Your task to perform on an android device: change text size in settings app Image 0: 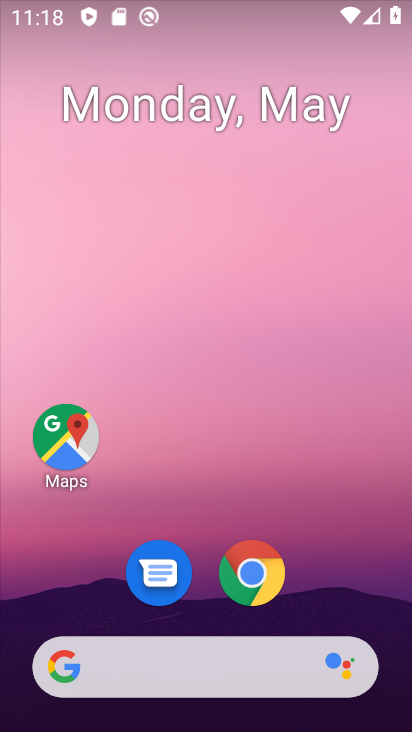
Step 0: drag from (261, 683) to (307, 499)
Your task to perform on an android device: change text size in settings app Image 1: 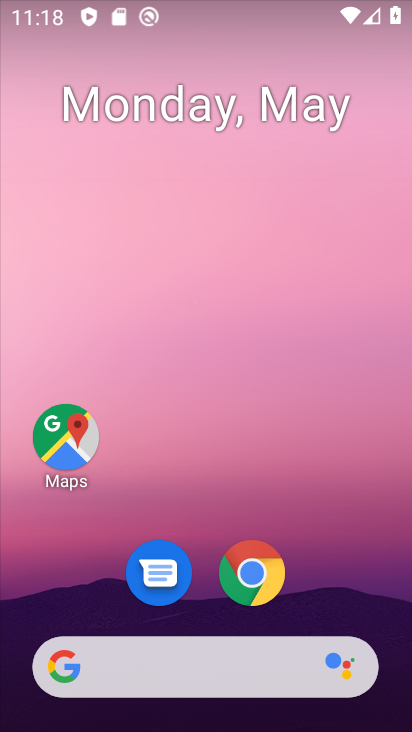
Step 1: drag from (158, 386) to (276, 41)
Your task to perform on an android device: change text size in settings app Image 2: 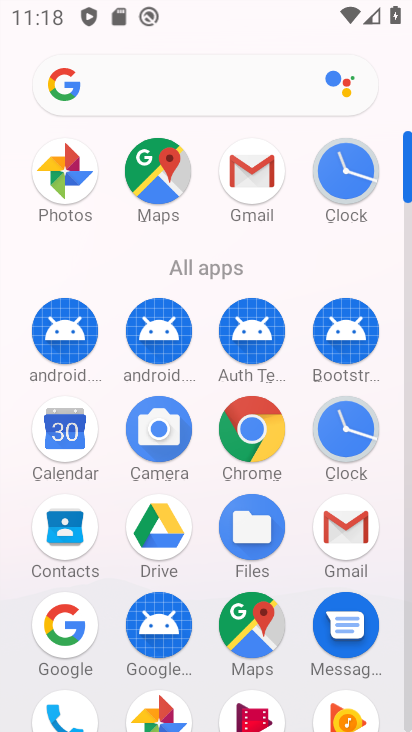
Step 2: drag from (224, 661) to (400, 549)
Your task to perform on an android device: change text size in settings app Image 3: 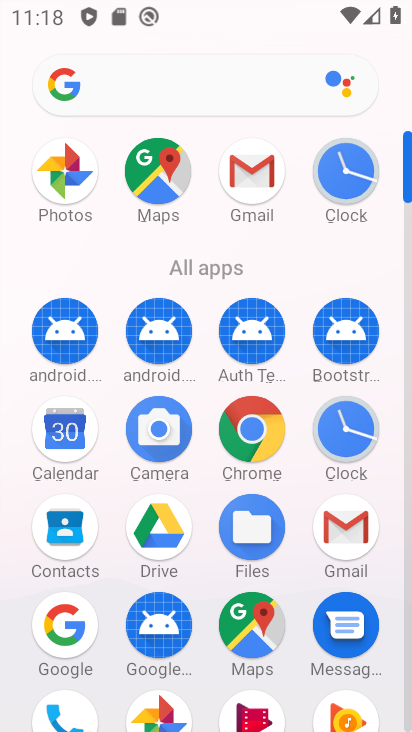
Step 3: drag from (223, 669) to (374, 25)
Your task to perform on an android device: change text size in settings app Image 4: 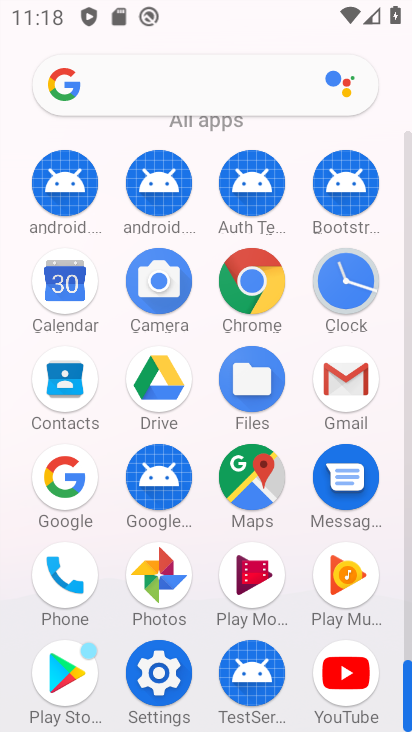
Step 4: drag from (202, 595) to (407, 279)
Your task to perform on an android device: change text size in settings app Image 5: 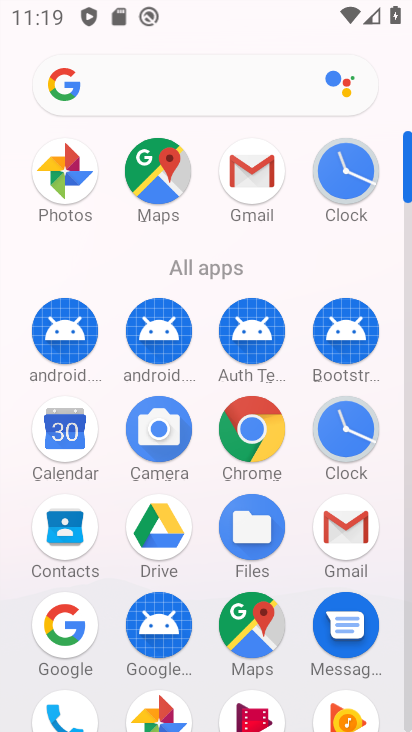
Step 5: drag from (165, 634) to (314, 77)
Your task to perform on an android device: change text size in settings app Image 6: 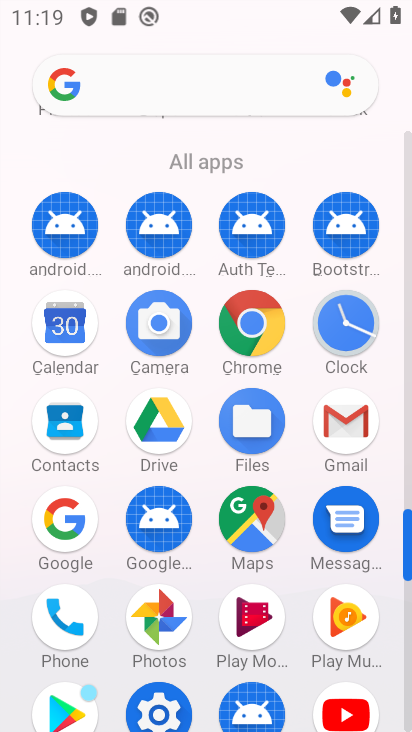
Step 6: click (170, 697)
Your task to perform on an android device: change text size in settings app Image 7: 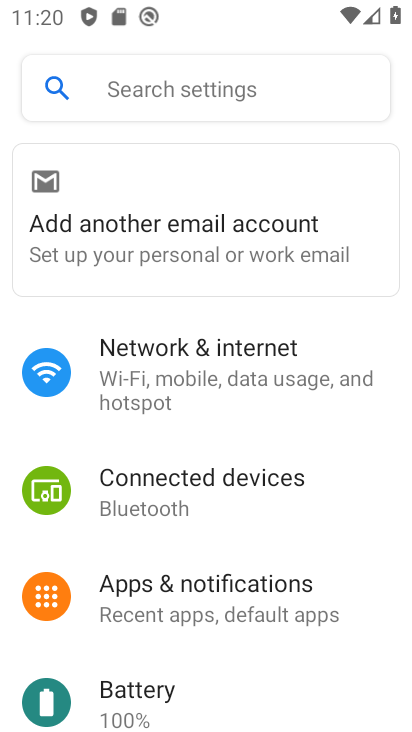
Step 7: drag from (223, 498) to (233, 137)
Your task to perform on an android device: change text size in settings app Image 8: 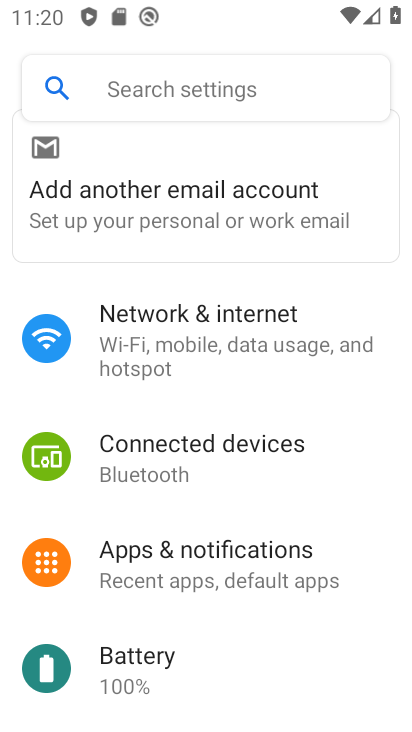
Step 8: drag from (207, 603) to (313, 9)
Your task to perform on an android device: change text size in settings app Image 9: 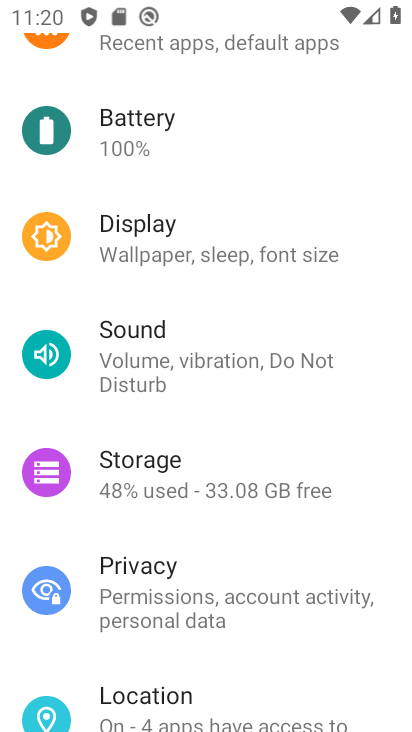
Step 9: click (194, 259)
Your task to perform on an android device: change text size in settings app Image 10: 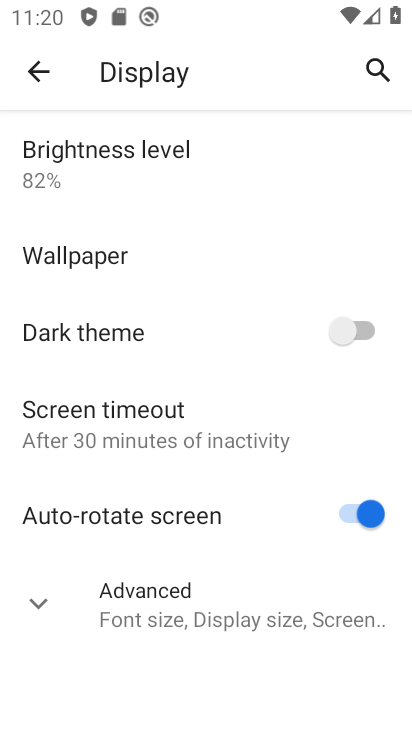
Step 10: click (214, 618)
Your task to perform on an android device: change text size in settings app Image 11: 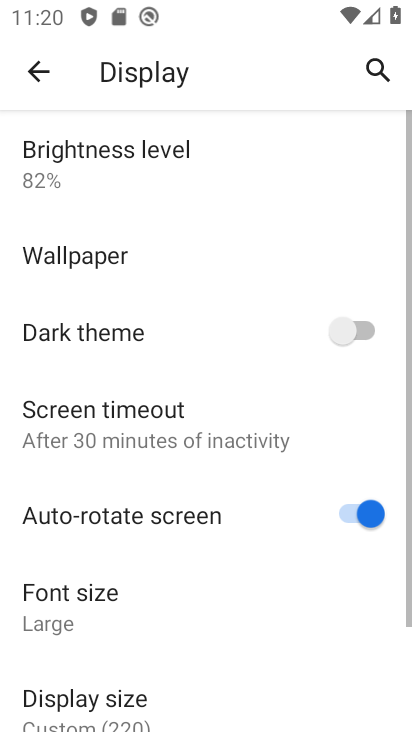
Step 11: click (125, 613)
Your task to perform on an android device: change text size in settings app Image 12: 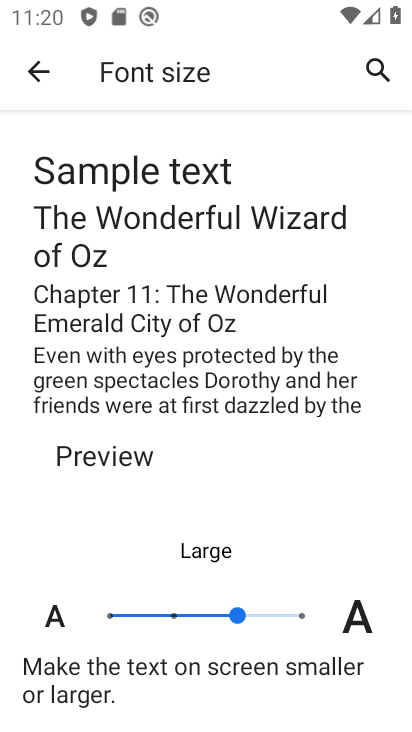
Step 12: click (170, 614)
Your task to perform on an android device: change text size in settings app Image 13: 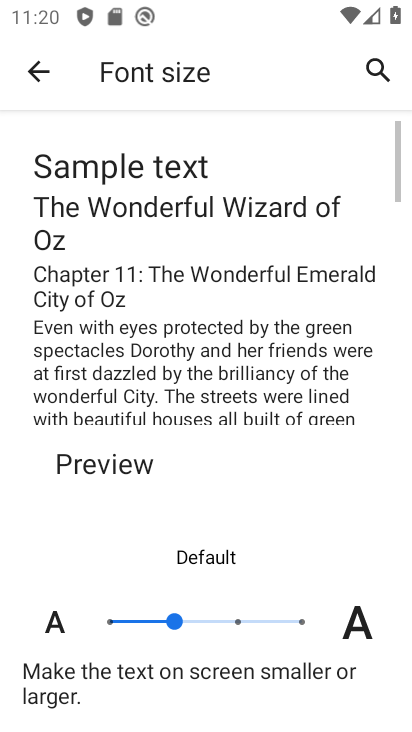
Step 13: task complete